Your task to perform on an android device: add a label to a message in the gmail app Image 0: 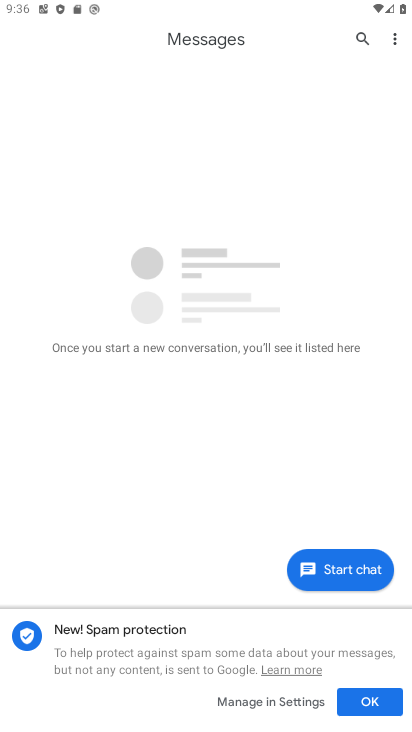
Step 0: press home button
Your task to perform on an android device: add a label to a message in the gmail app Image 1: 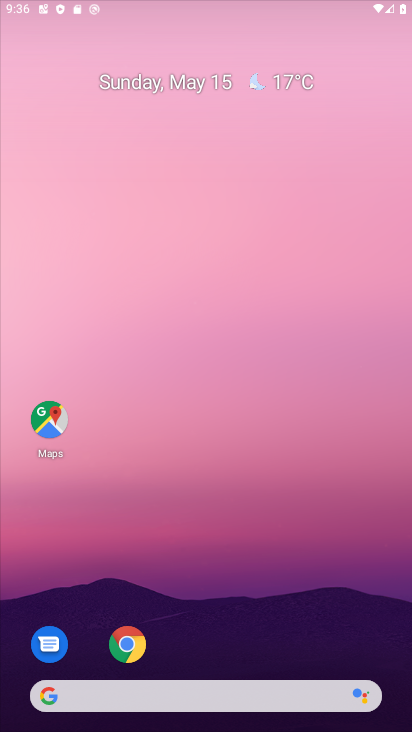
Step 1: drag from (215, 717) to (262, 341)
Your task to perform on an android device: add a label to a message in the gmail app Image 2: 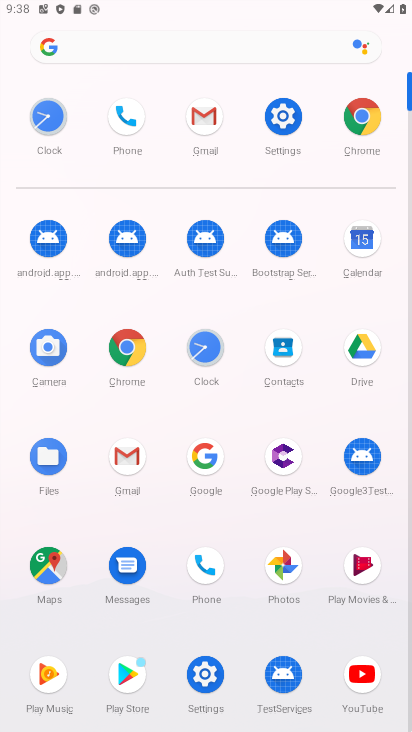
Step 2: click (139, 466)
Your task to perform on an android device: add a label to a message in the gmail app Image 3: 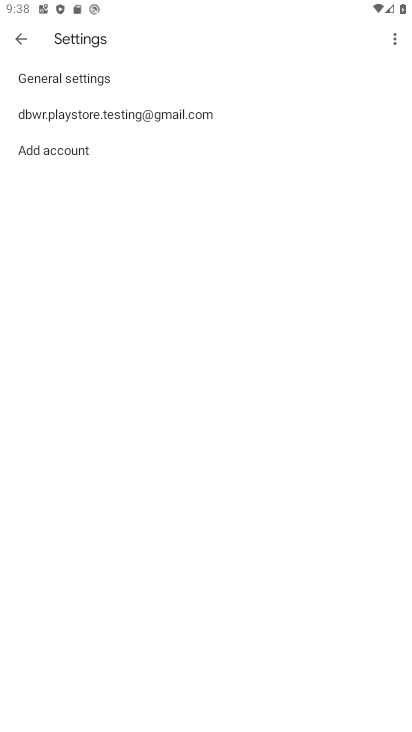
Step 3: click (103, 116)
Your task to perform on an android device: add a label to a message in the gmail app Image 4: 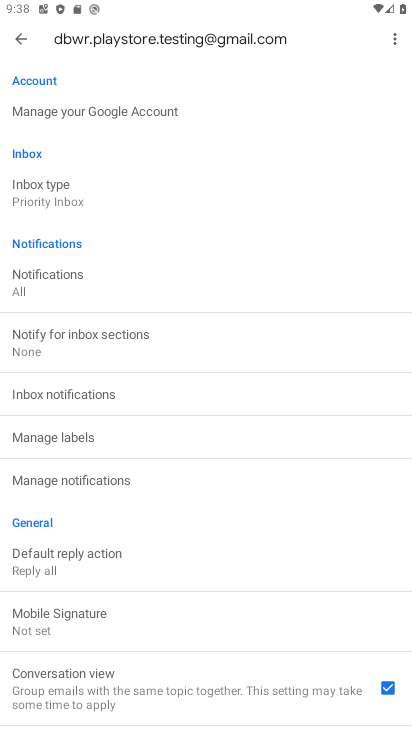
Step 4: click (76, 439)
Your task to perform on an android device: add a label to a message in the gmail app Image 5: 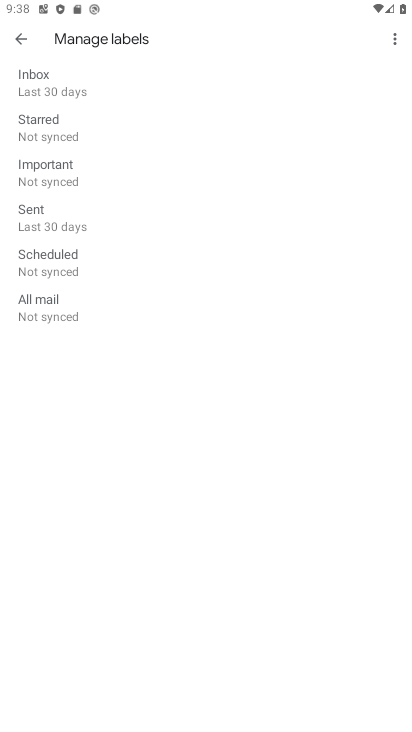
Step 5: click (107, 171)
Your task to perform on an android device: add a label to a message in the gmail app Image 6: 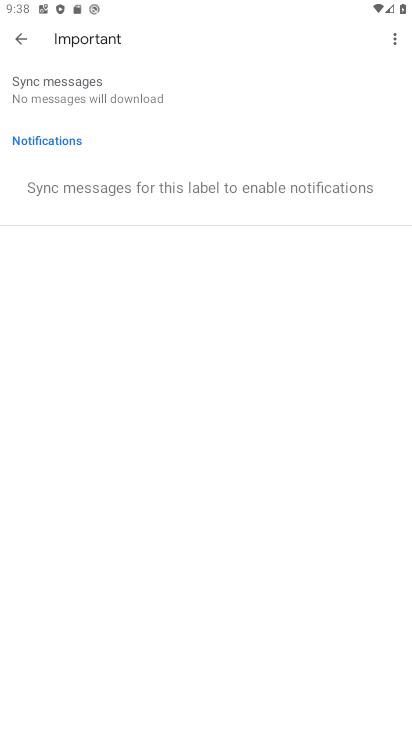
Step 6: task complete